Your task to perform on an android device: Open Maps and search for coffee Image 0: 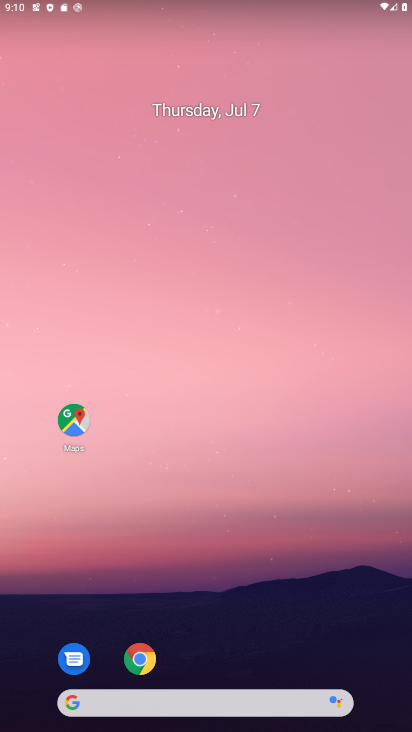
Step 0: drag from (229, 627) to (277, 91)
Your task to perform on an android device: Open Maps and search for coffee Image 1: 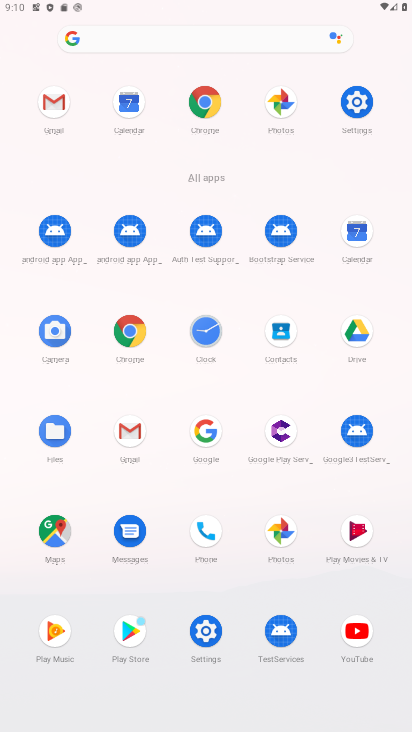
Step 1: click (54, 535)
Your task to perform on an android device: Open Maps and search for coffee Image 2: 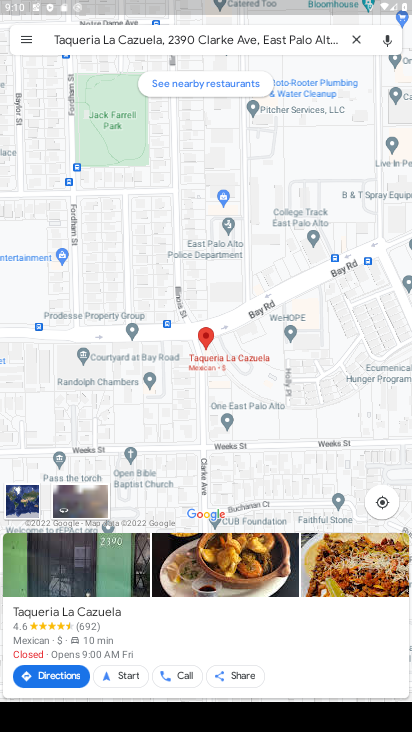
Step 2: click (175, 38)
Your task to perform on an android device: Open Maps and search for coffee Image 3: 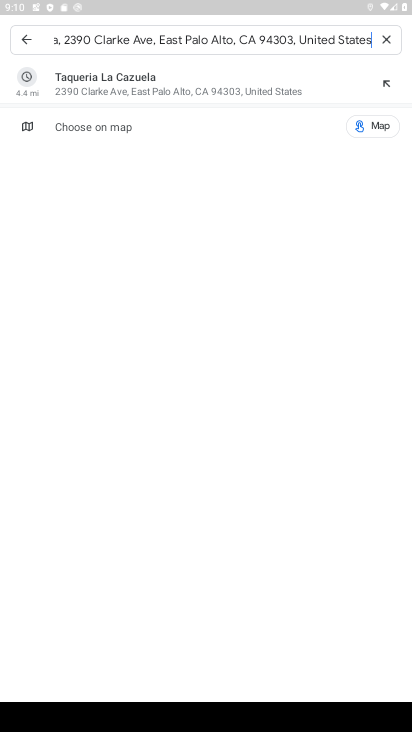
Step 3: click (387, 34)
Your task to perform on an android device: Open Maps and search for coffee Image 4: 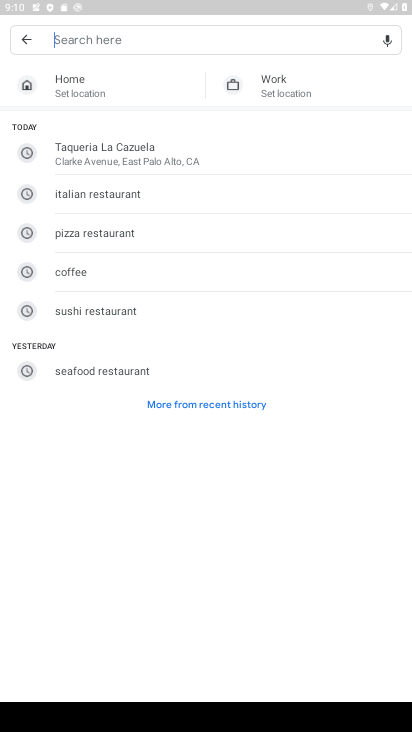
Step 4: type "coffee"
Your task to perform on an android device: Open Maps and search for coffee Image 5: 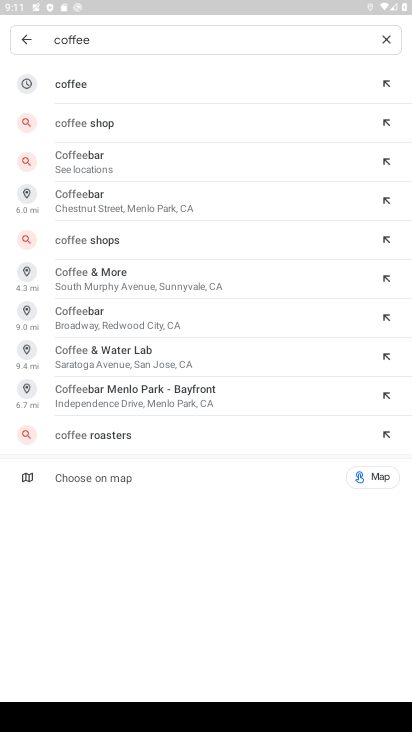
Step 5: click (186, 73)
Your task to perform on an android device: Open Maps and search for coffee Image 6: 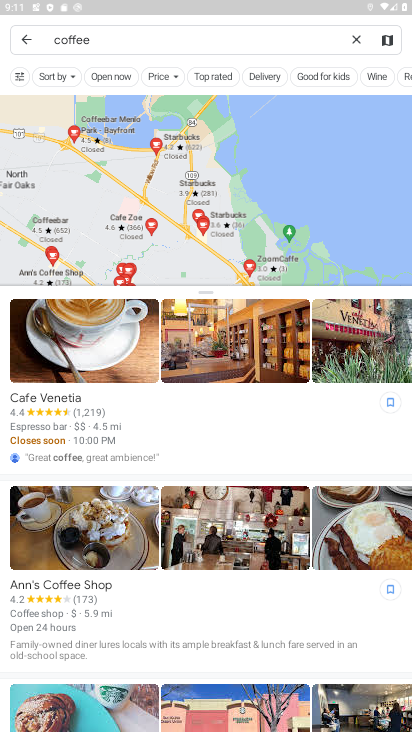
Step 6: task complete